Your task to perform on an android device: check google app version Image 0: 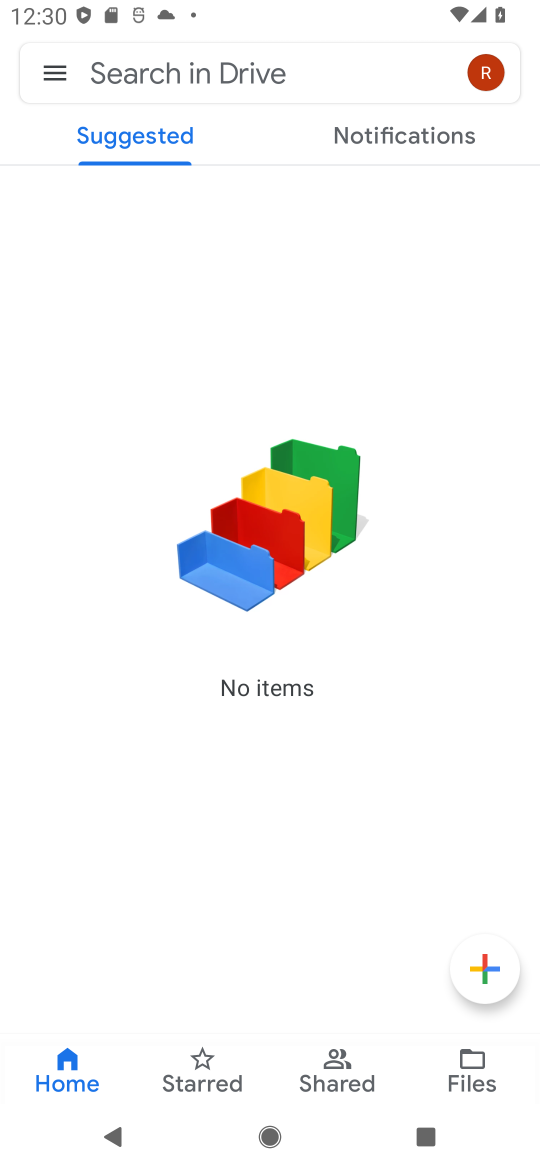
Step 0: press home button
Your task to perform on an android device: check google app version Image 1: 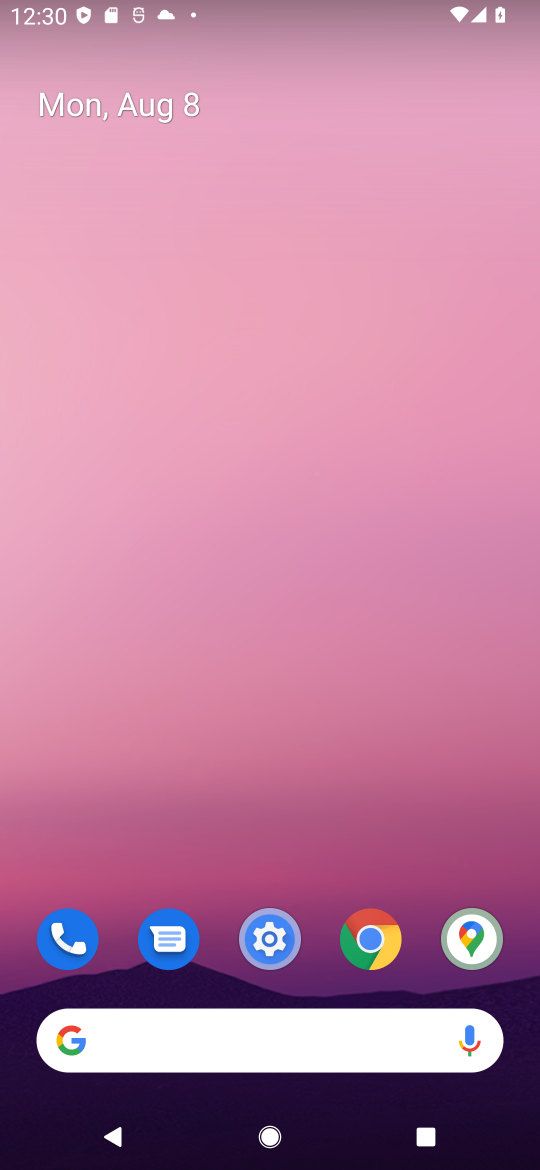
Step 1: drag from (208, 1033) to (326, 232)
Your task to perform on an android device: check google app version Image 2: 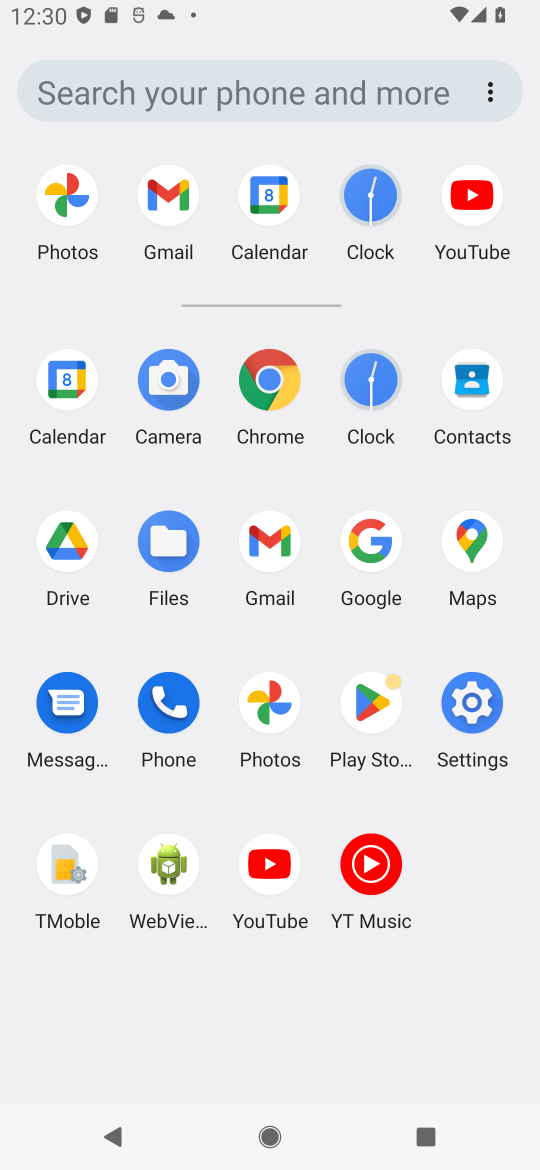
Step 2: click (366, 542)
Your task to perform on an android device: check google app version Image 3: 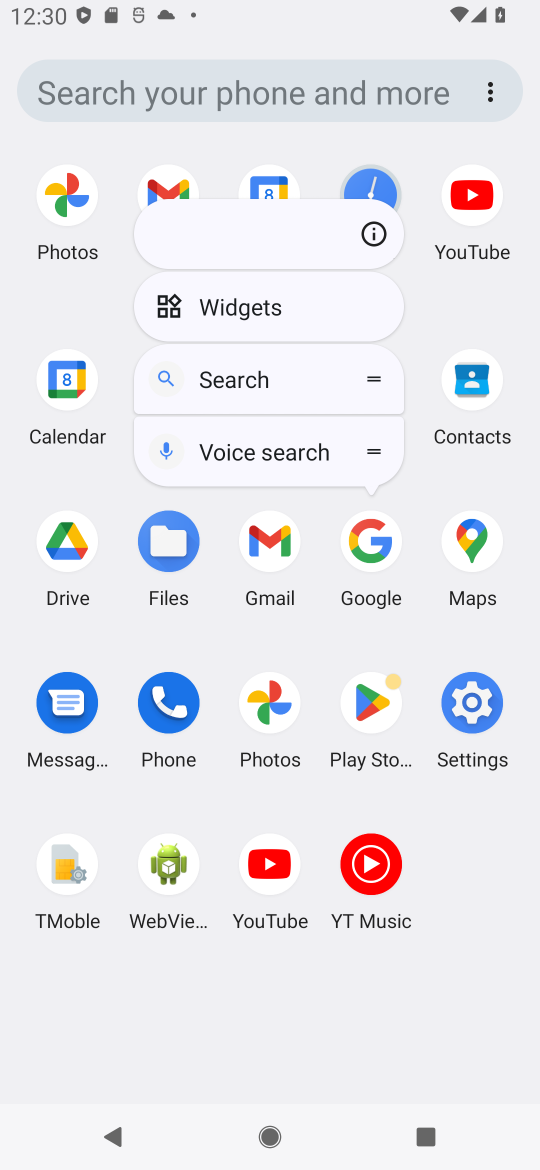
Step 3: click (372, 227)
Your task to perform on an android device: check google app version Image 4: 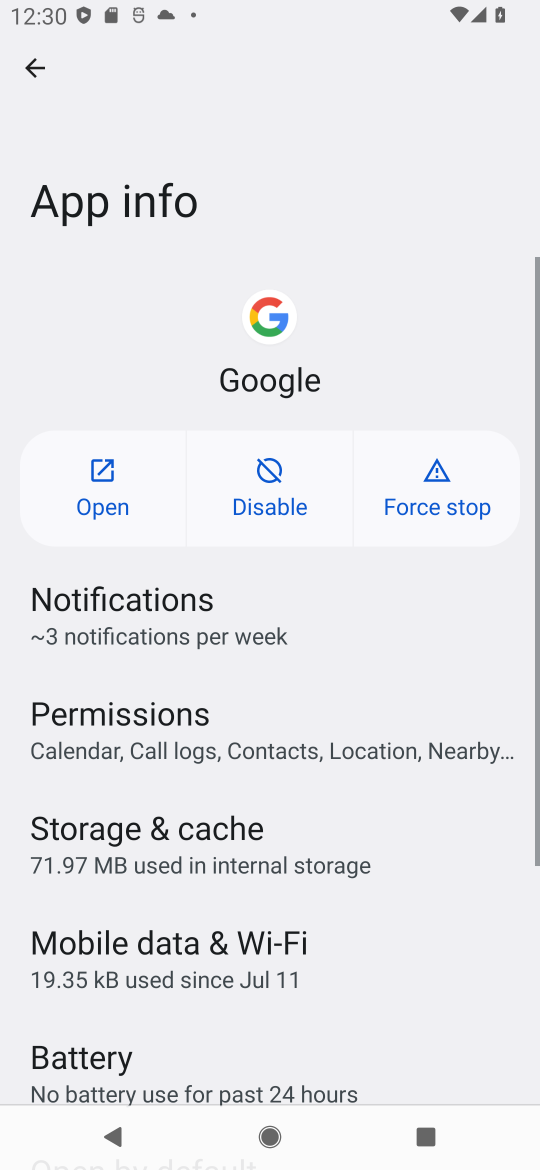
Step 4: task complete